Your task to perform on an android device: Go to notification settings Image 0: 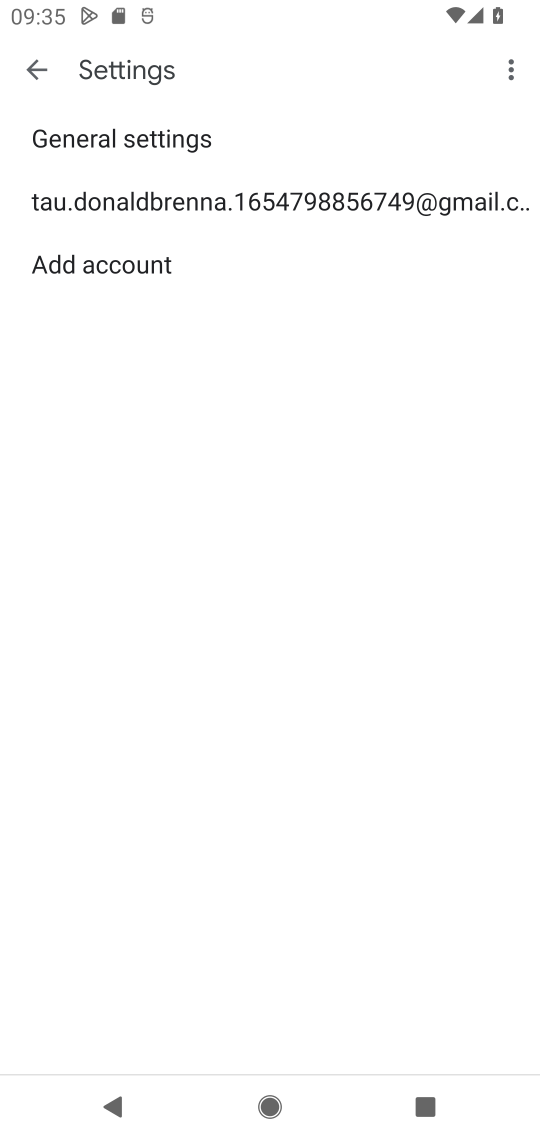
Step 0: press home button
Your task to perform on an android device: Go to notification settings Image 1: 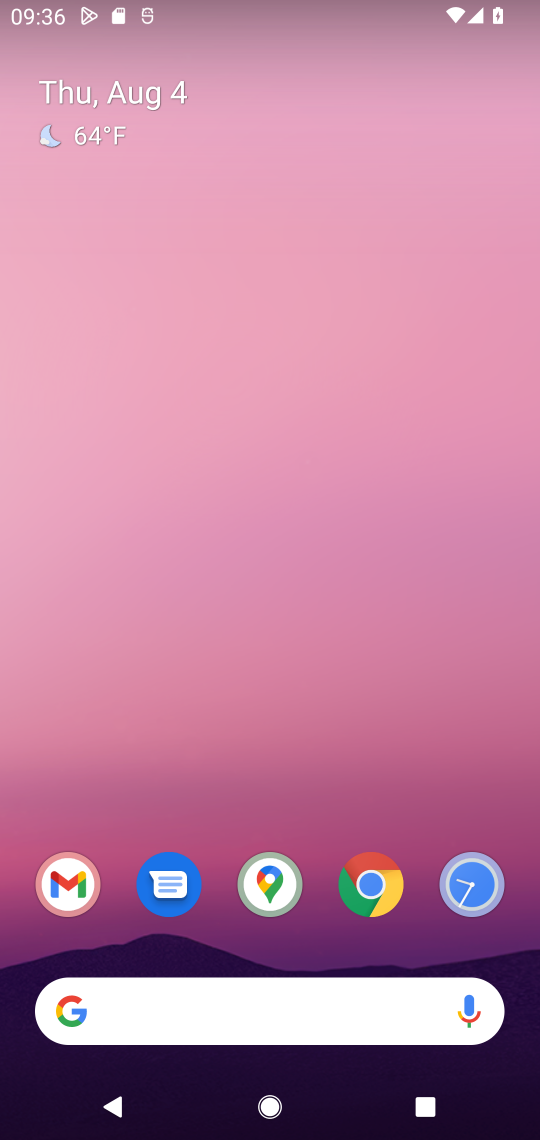
Step 1: drag from (393, 270) to (446, 3)
Your task to perform on an android device: Go to notification settings Image 2: 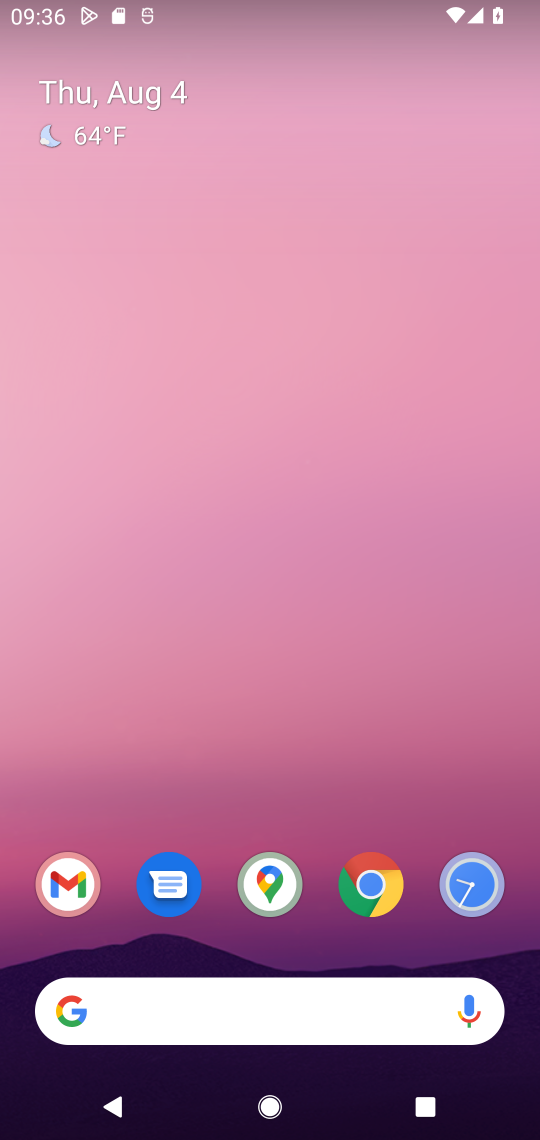
Step 2: drag from (174, 1081) to (330, 43)
Your task to perform on an android device: Go to notification settings Image 3: 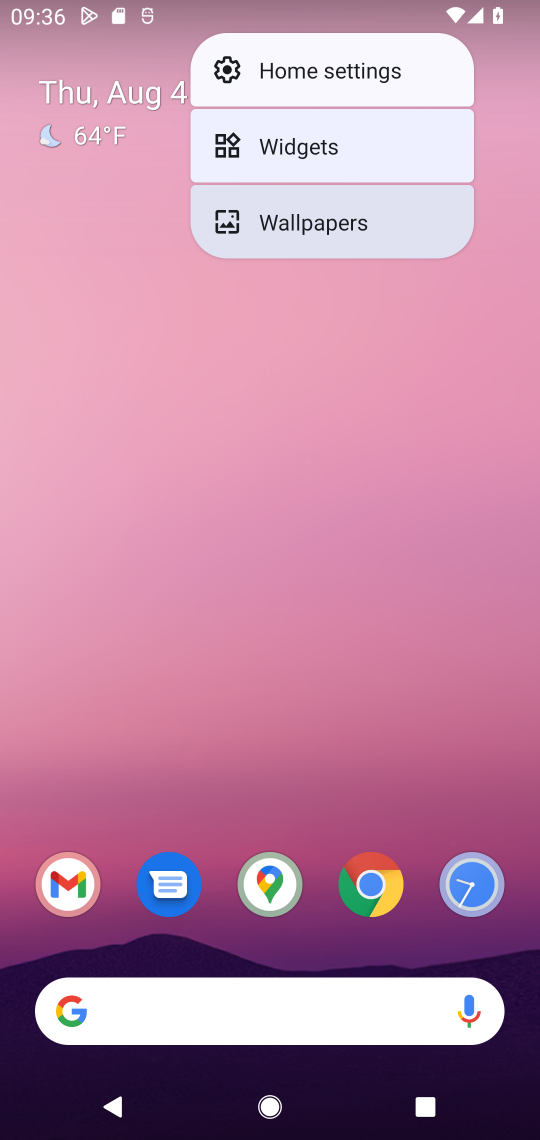
Step 3: drag from (366, 741) to (351, 68)
Your task to perform on an android device: Go to notification settings Image 4: 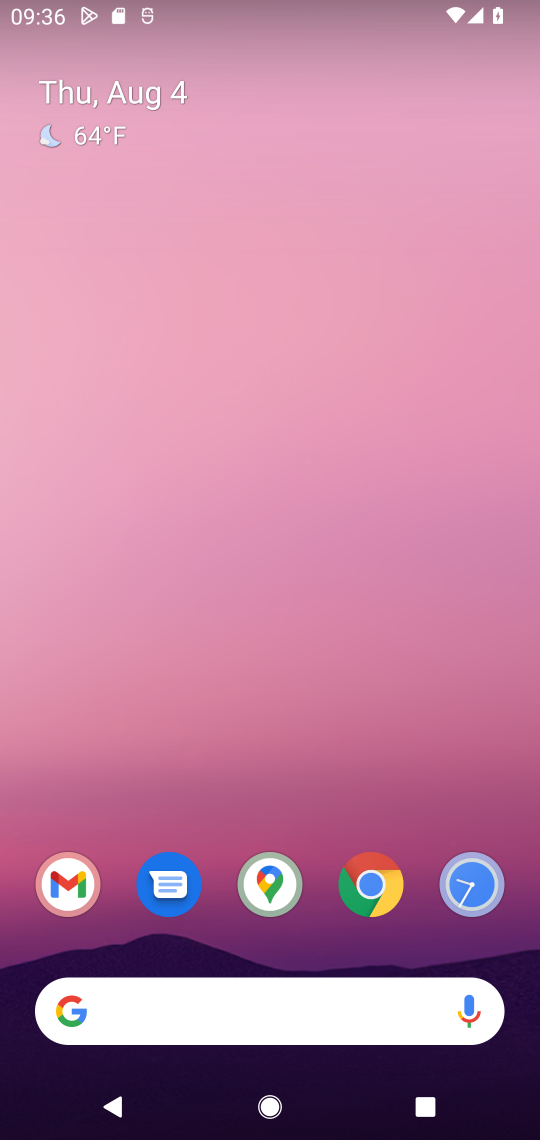
Step 4: drag from (199, 1092) to (273, 162)
Your task to perform on an android device: Go to notification settings Image 5: 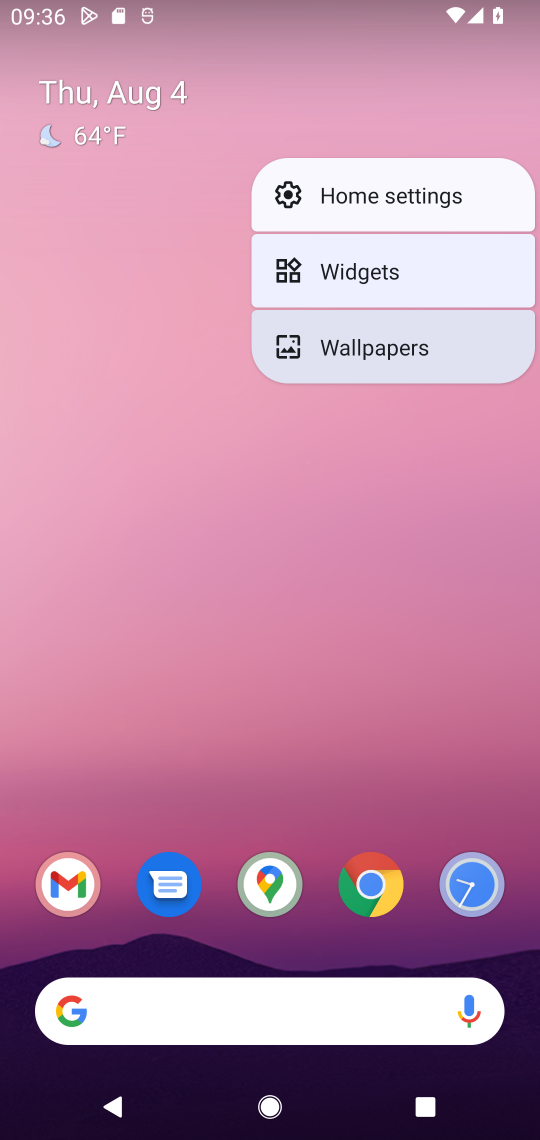
Step 5: drag from (380, 1088) to (210, 571)
Your task to perform on an android device: Go to notification settings Image 6: 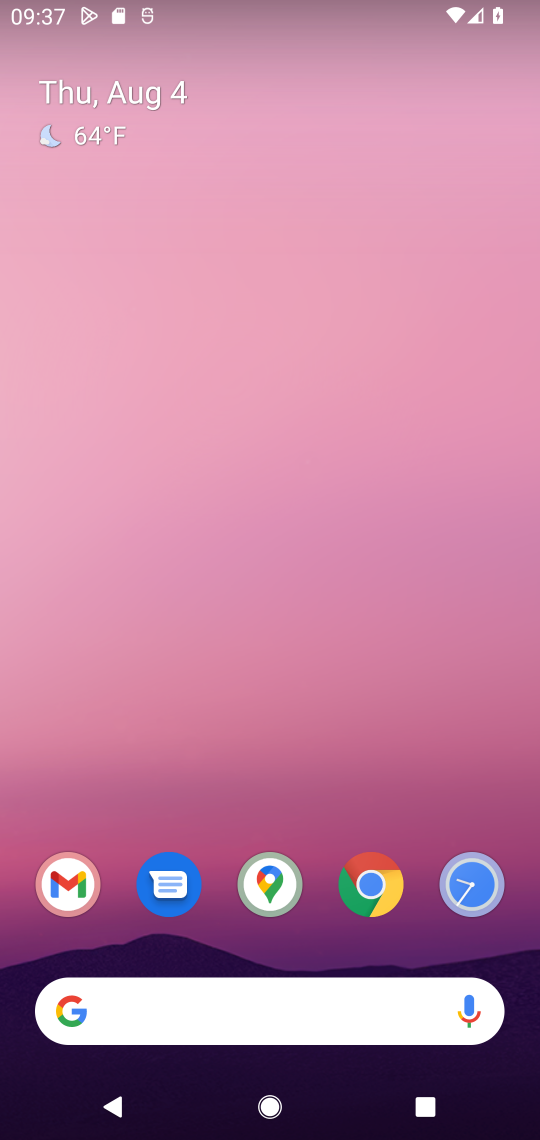
Step 6: drag from (192, 1018) to (277, 34)
Your task to perform on an android device: Go to notification settings Image 7: 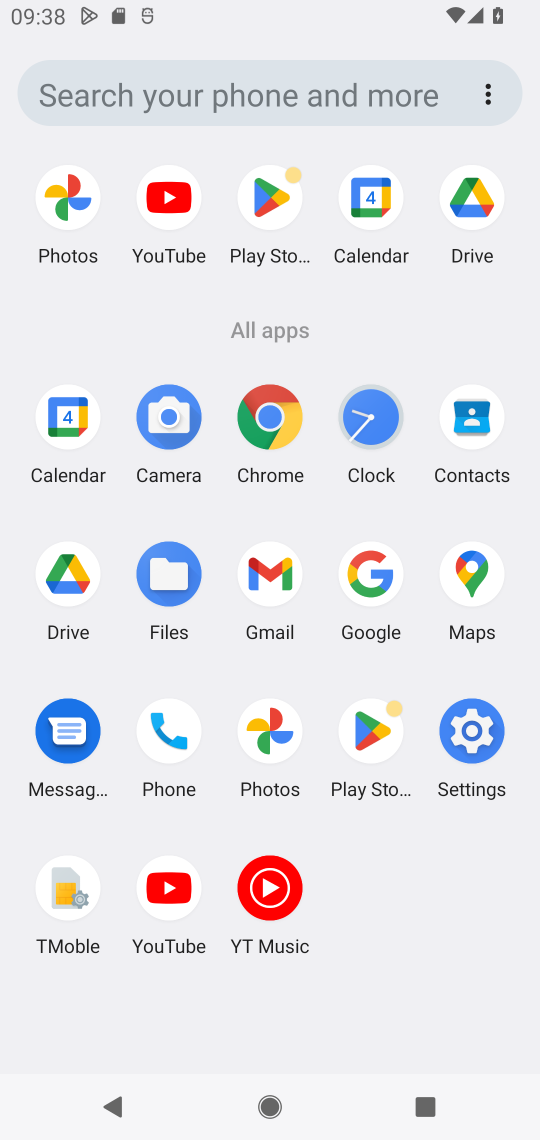
Step 7: click (493, 734)
Your task to perform on an android device: Go to notification settings Image 8: 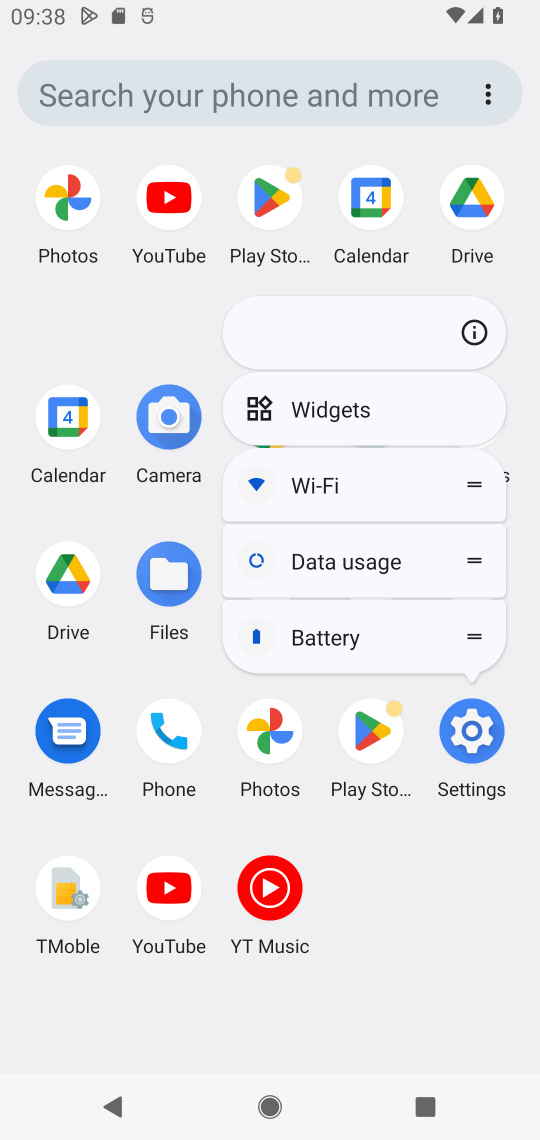
Step 8: click (493, 734)
Your task to perform on an android device: Go to notification settings Image 9: 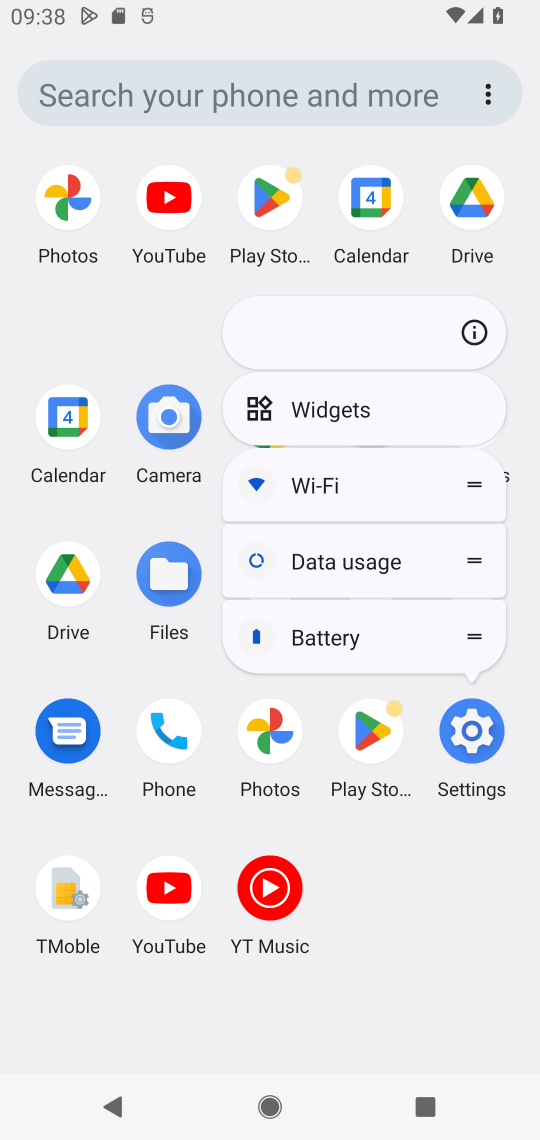
Step 9: click (461, 756)
Your task to perform on an android device: Go to notification settings Image 10: 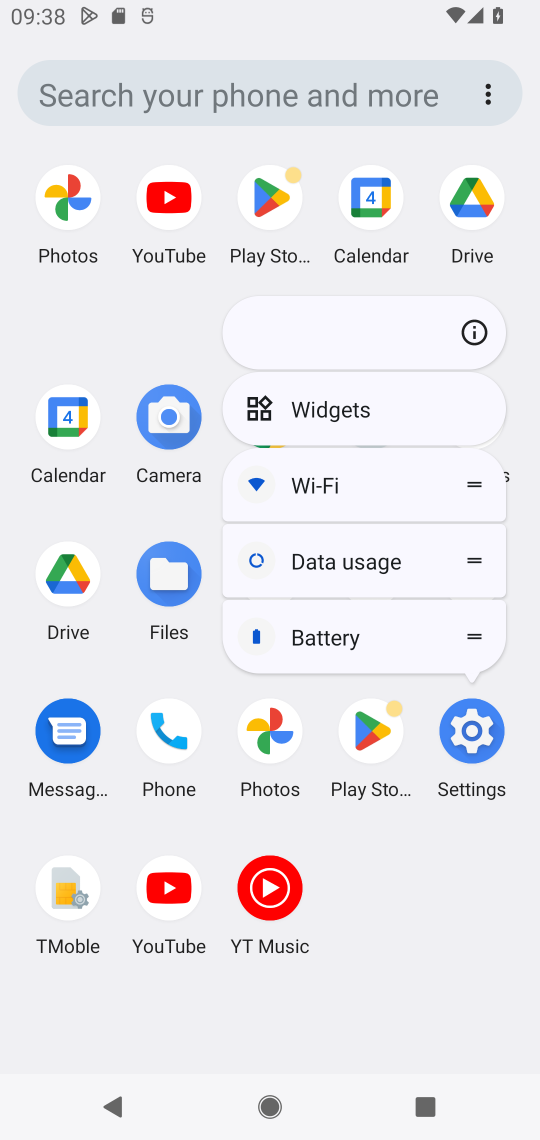
Step 10: click (466, 738)
Your task to perform on an android device: Go to notification settings Image 11: 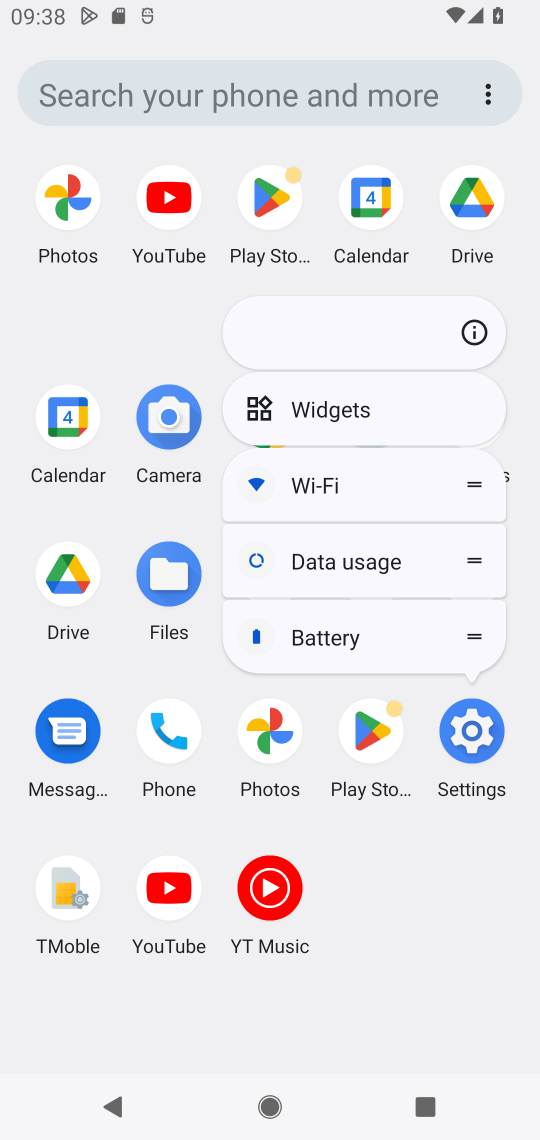
Step 11: click (465, 776)
Your task to perform on an android device: Go to notification settings Image 12: 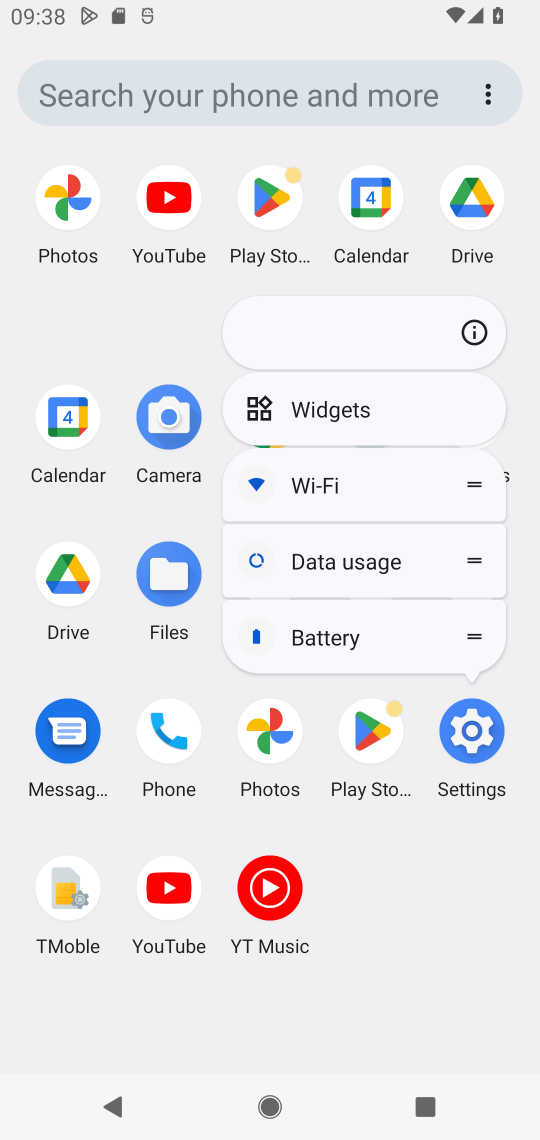
Step 12: click (460, 776)
Your task to perform on an android device: Go to notification settings Image 13: 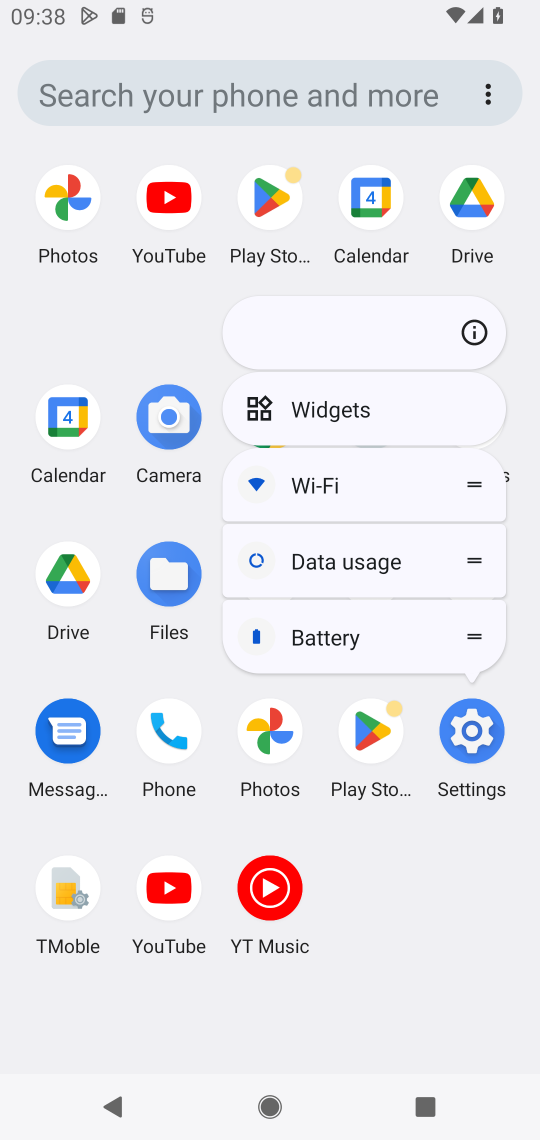
Step 13: click (463, 781)
Your task to perform on an android device: Go to notification settings Image 14: 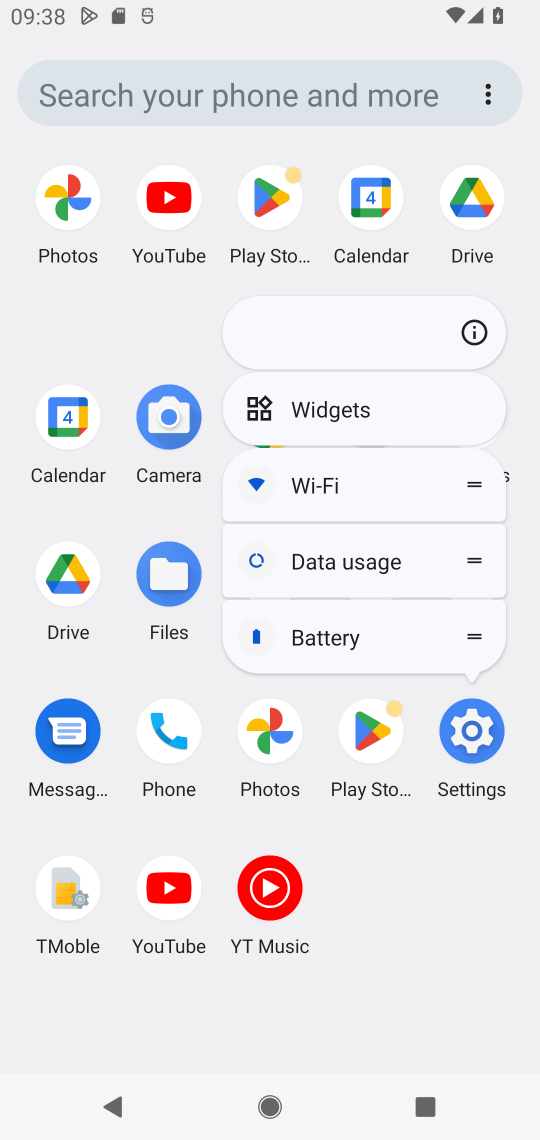
Step 14: click (470, 761)
Your task to perform on an android device: Go to notification settings Image 15: 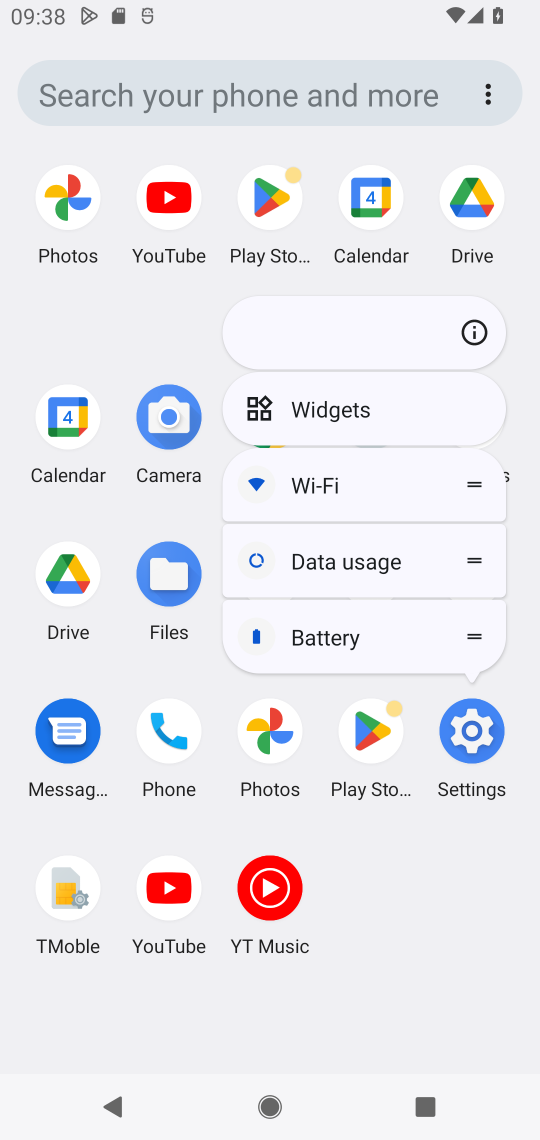
Step 15: click (477, 759)
Your task to perform on an android device: Go to notification settings Image 16: 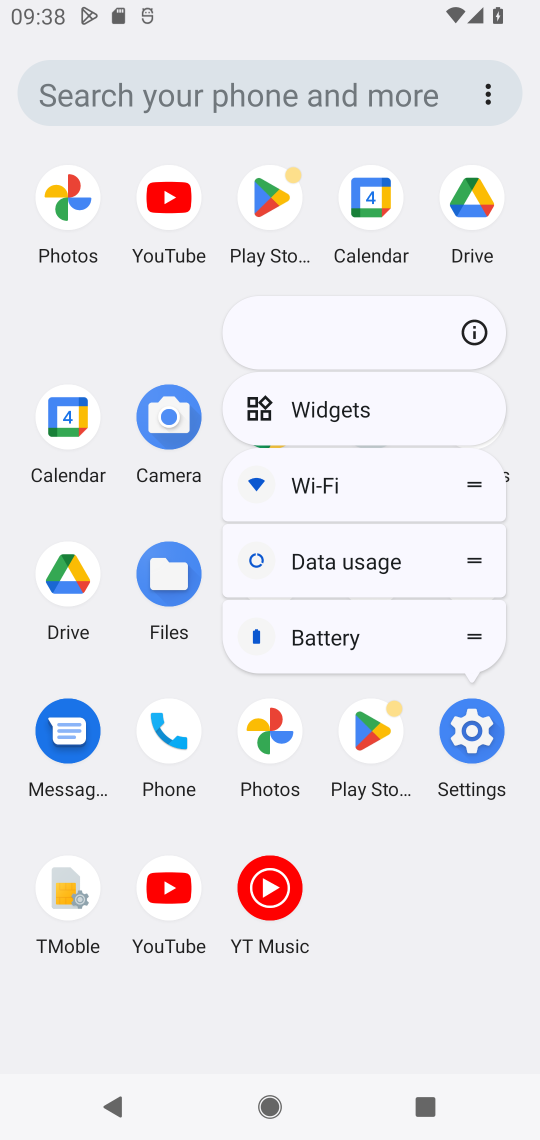
Step 16: click (477, 759)
Your task to perform on an android device: Go to notification settings Image 17: 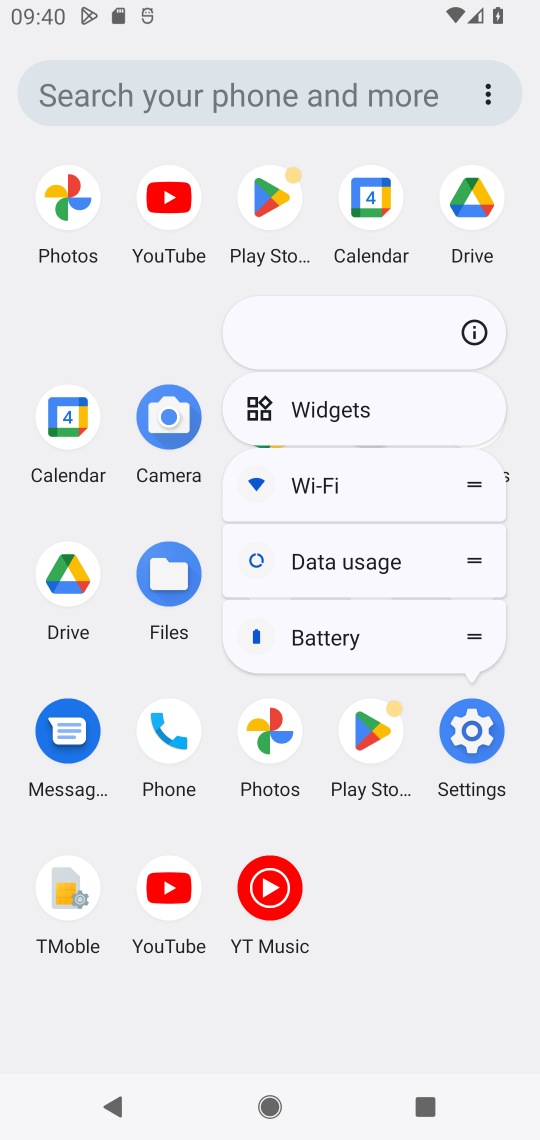
Step 17: click (466, 749)
Your task to perform on an android device: Go to notification settings Image 18: 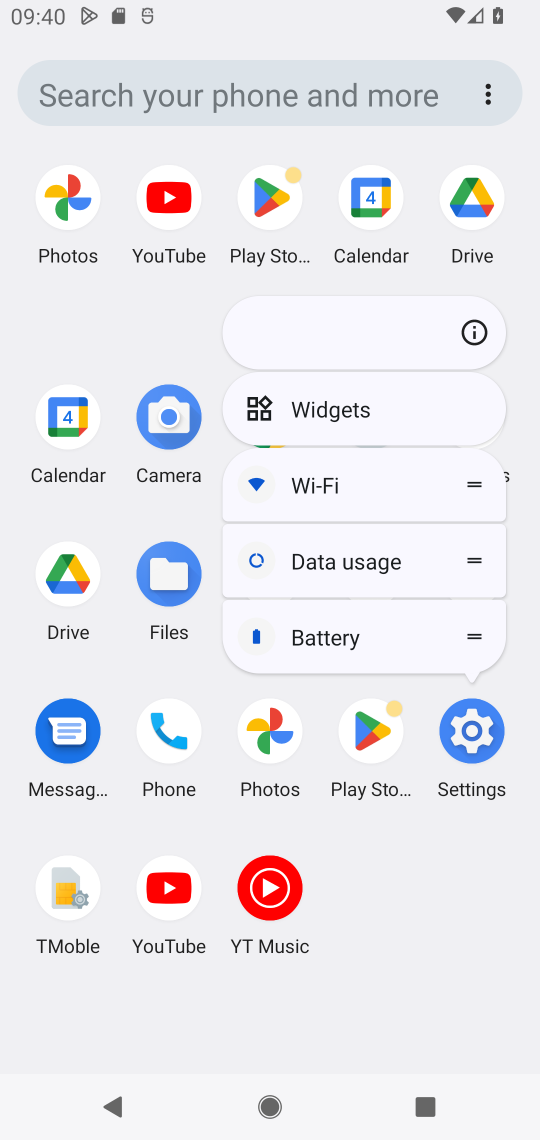
Step 18: click (479, 761)
Your task to perform on an android device: Go to notification settings Image 19: 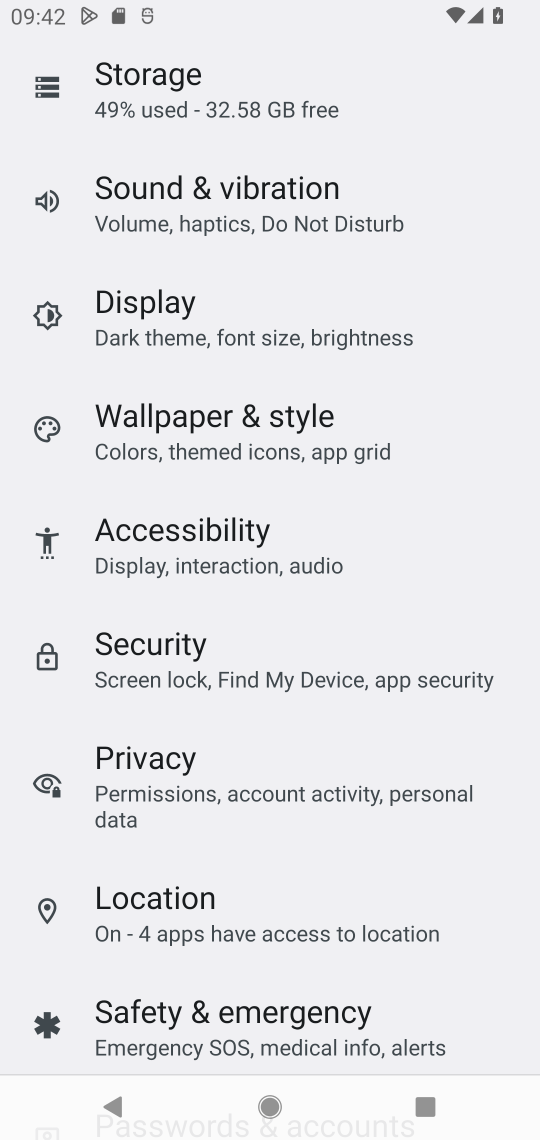
Step 19: drag from (298, 260) to (266, 1125)
Your task to perform on an android device: Go to notification settings Image 20: 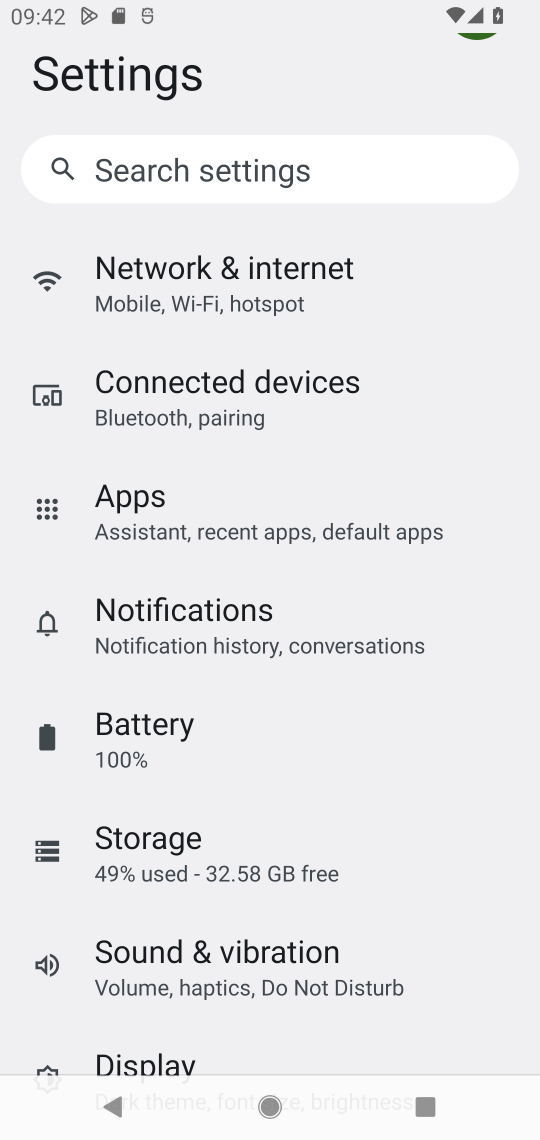
Step 20: click (269, 613)
Your task to perform on an android device: Go to notification settings Image 21: 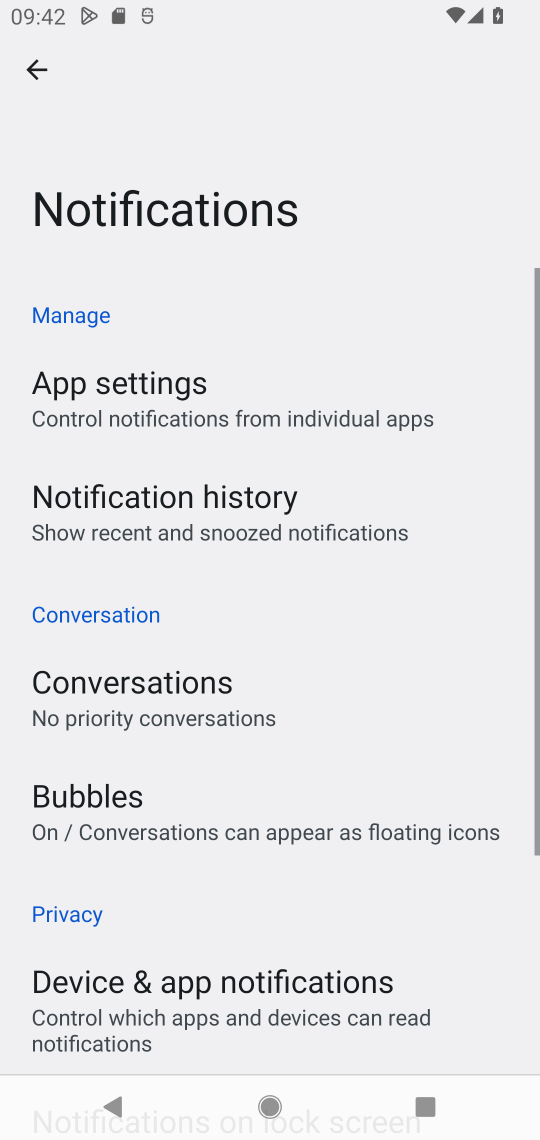
Step 21: task complete